Your task to perform on an android device: Add "beats solo 3" to the cart on walmart, then select checkout. Image 0: 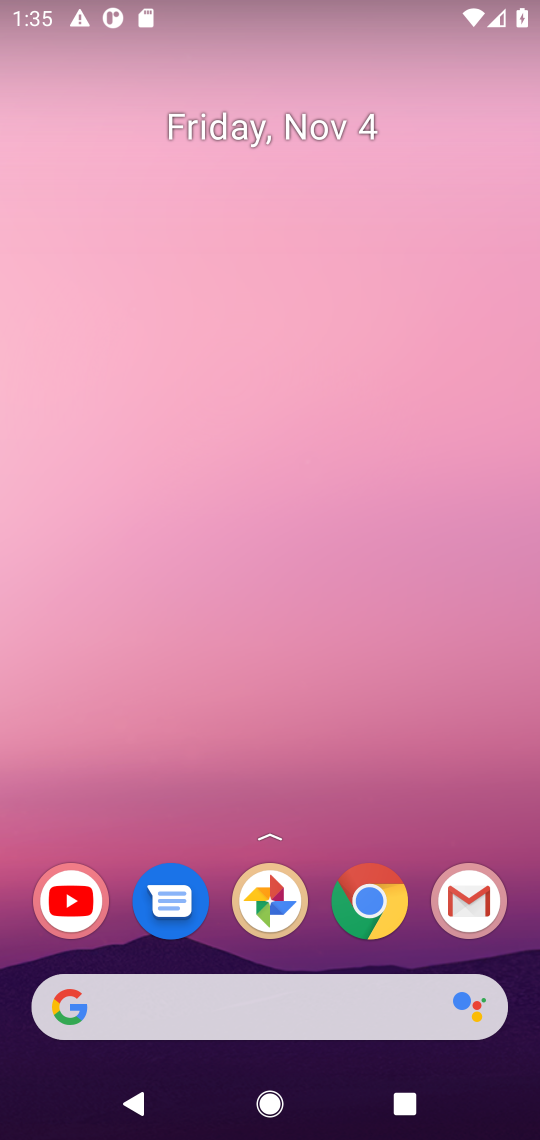
Step 0: click (354, 898)
Your task to perform on an android device: Add "beats solo 3" to the cart on walmart, then select checkout. Image 1: 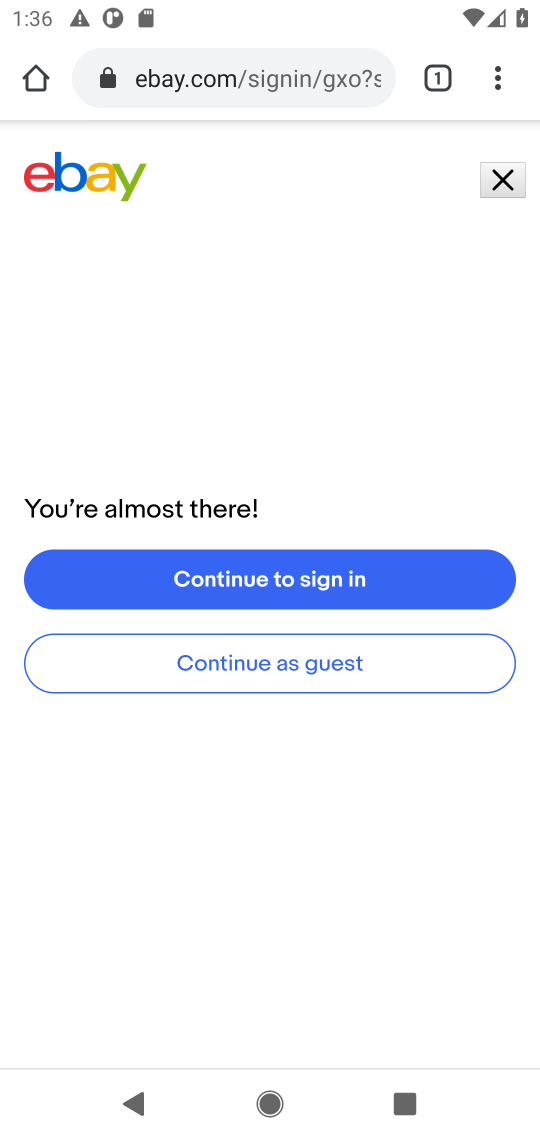
Step 1: click (263, 59)
Your task to perform on an android device: Add "beats solo 3" to the cart on walmart, then select checkout. Image 2: 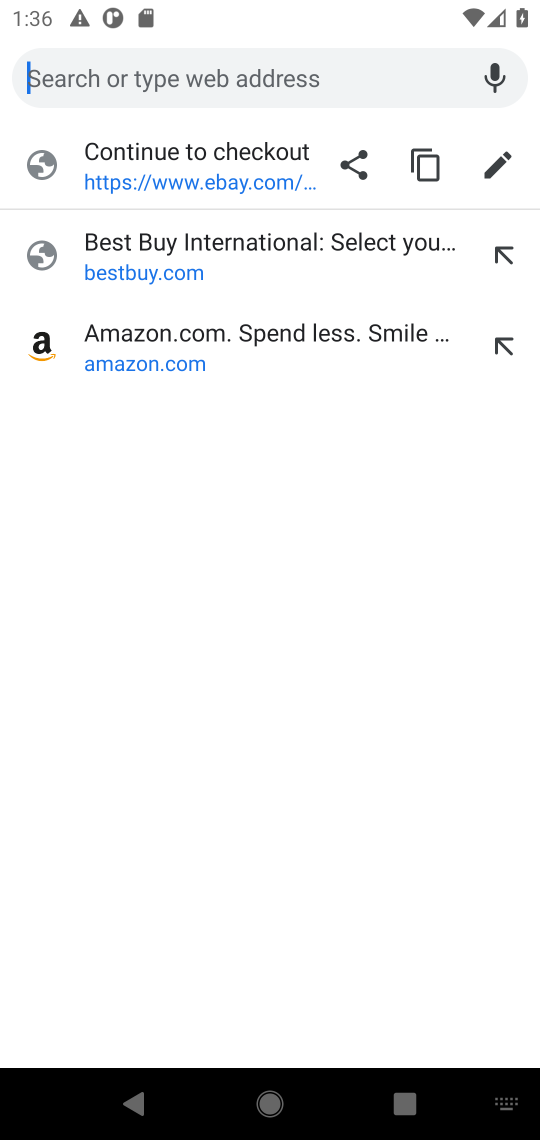
Step 2: type "walmart"
Your task to perform on an android device: Add "beats solo 3" to the cart on walmart, then select checkout. Image 3: 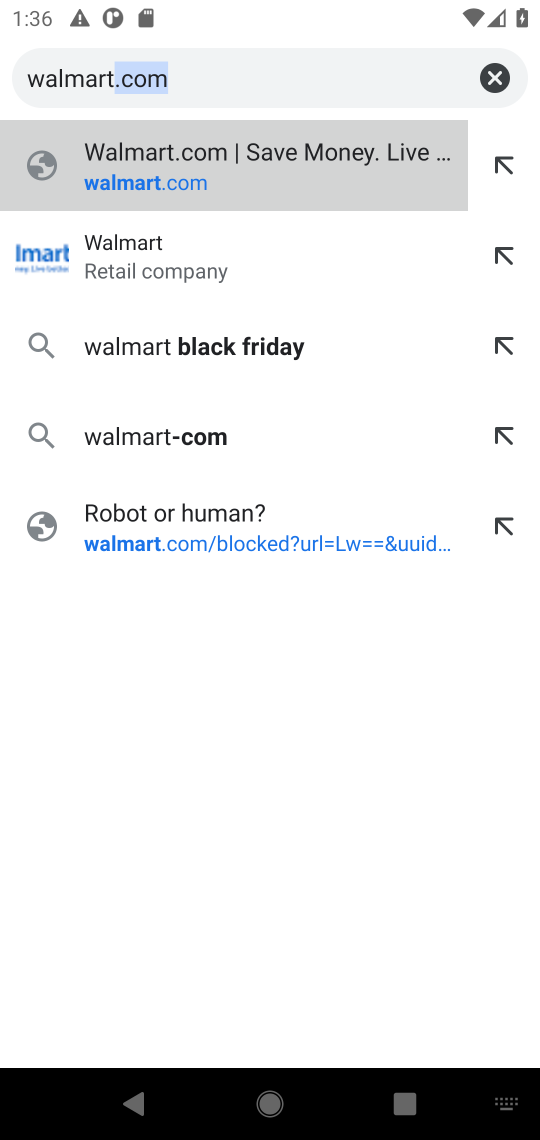
Step 3: press enter
Your task to perform on an android device: Add "beats solo 3" to the cart on walmart, then select checkout. Image 4: 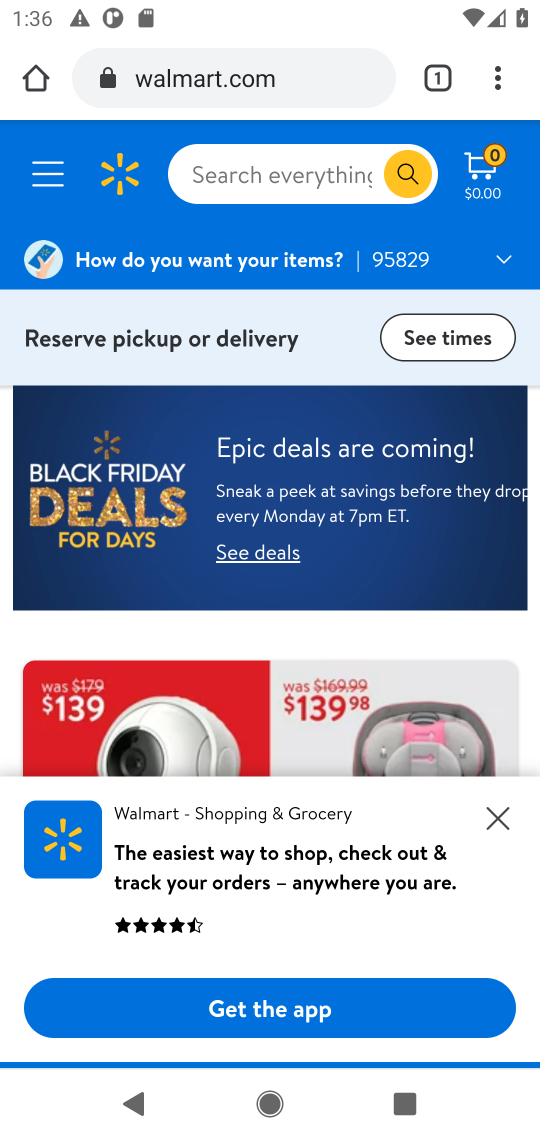
Step 4: click (261, 172)
Your task to perform on an android device: Add "beats solo 3" to the cart on walmart, then select checkout. Image 5: 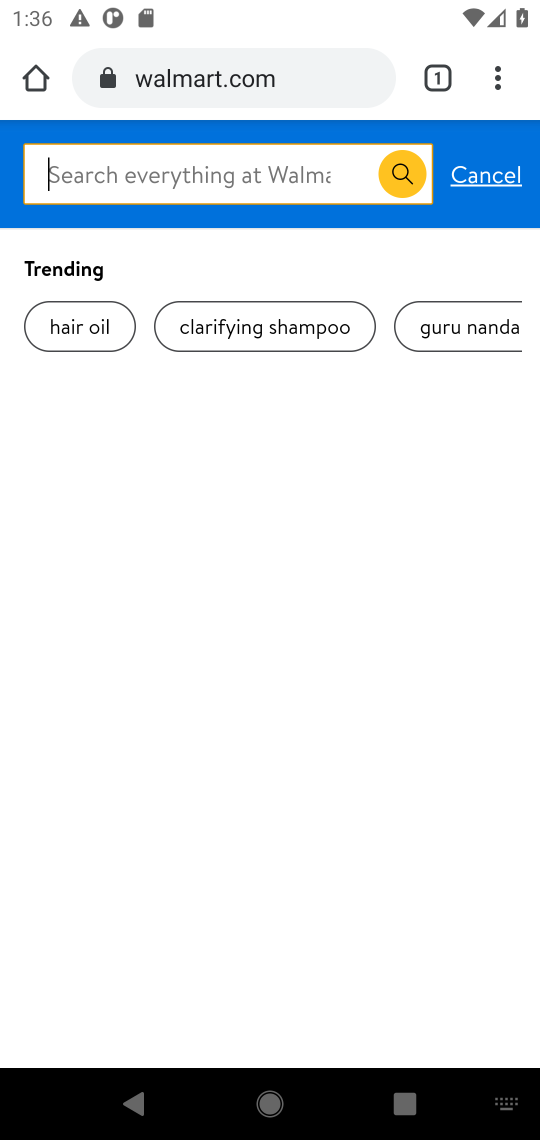
Step 5: type "beats solo 3"
Your task to perform on an android device: Add "beats solo 3" to the cart on walmart, then select checkout. Image 6: 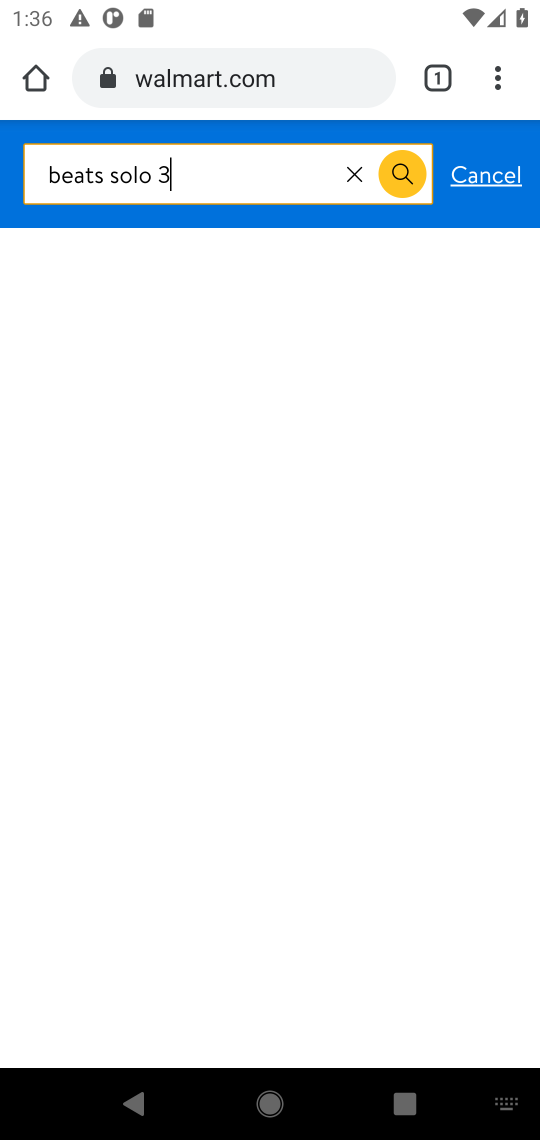
Step 6: press enter
Your task to perform on an android device: Add "beats solo 3" to the cart on walmart, then select checkout. Image 7: 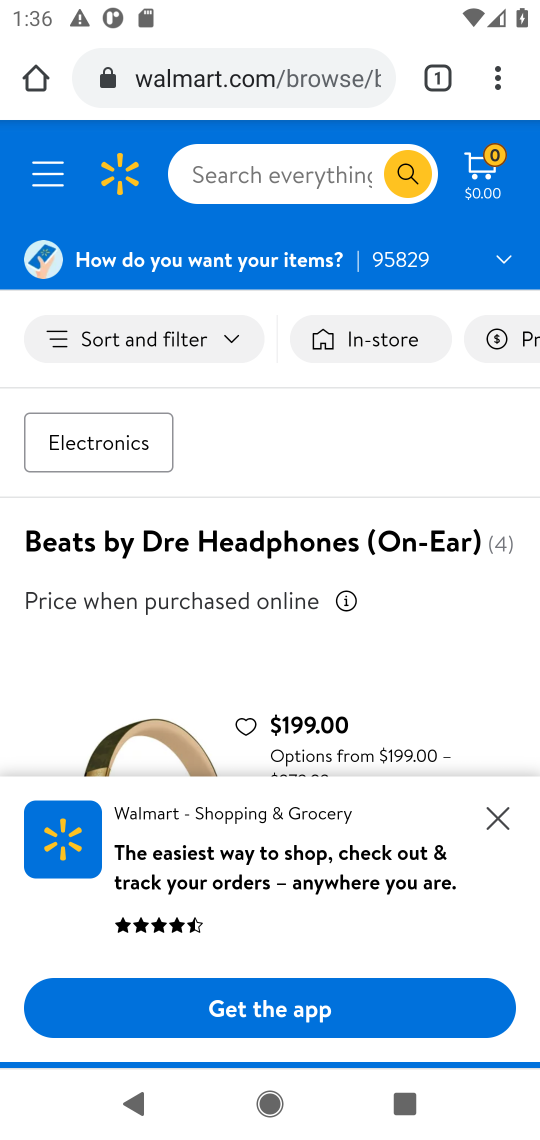
Step 7: click (502, 810)
Your task to perform on an android device: Add "beats solo 3" to the cart on walmart, then select checkout. Image 8: 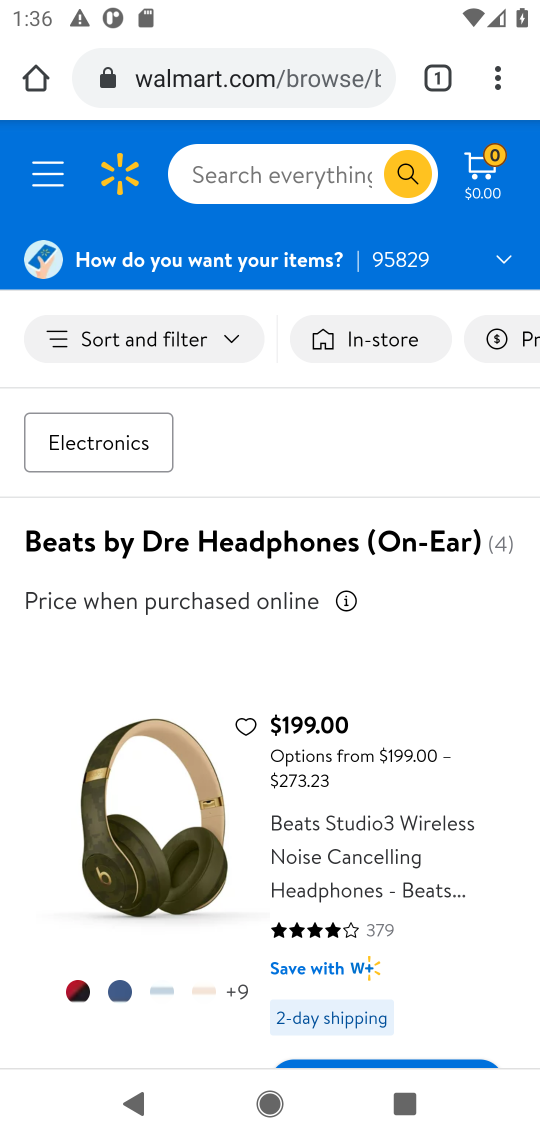
Step 8: drag from (419, 876) to (411, 467)
Your task to perform on an android device: Add "beats solo 3" to the cart on walmart, then select checkout. Image 9: 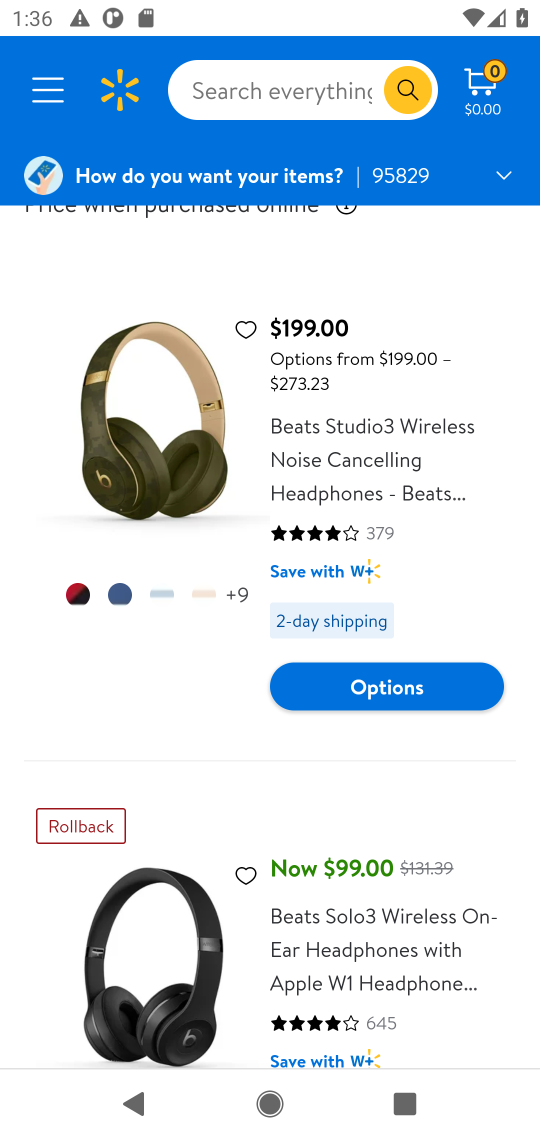
Step 9: click (141, 920)
Your task to perform on an android device: Add "beats solo 3" to the cart on walmart, then select checkout. Image 10: 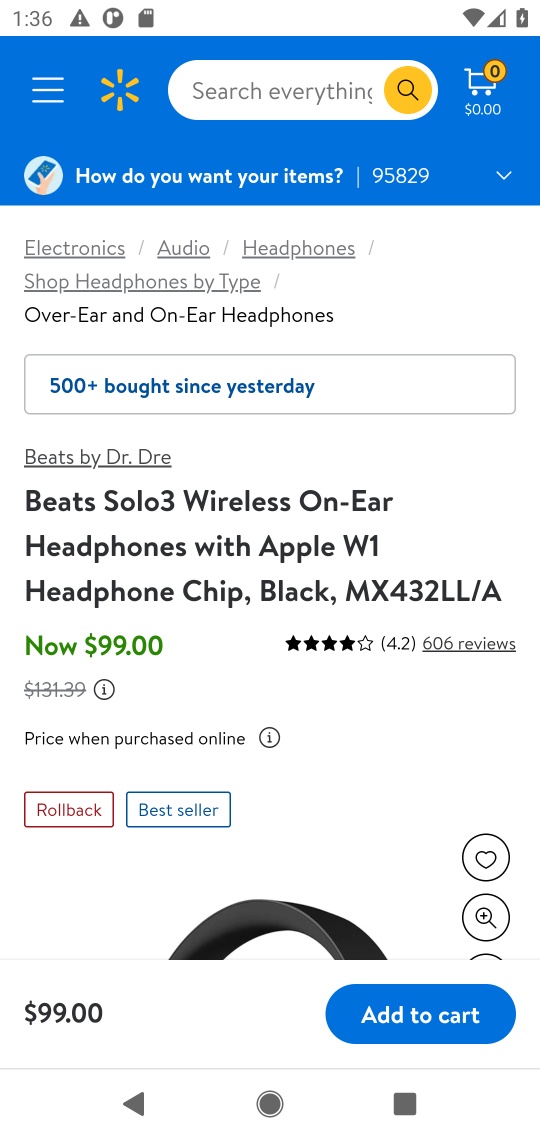
Step 10: click (447, 1020)
Your task to perform on an android device: Add "beats solo 3" to the cart on walmart, then select checkout. Image 11: 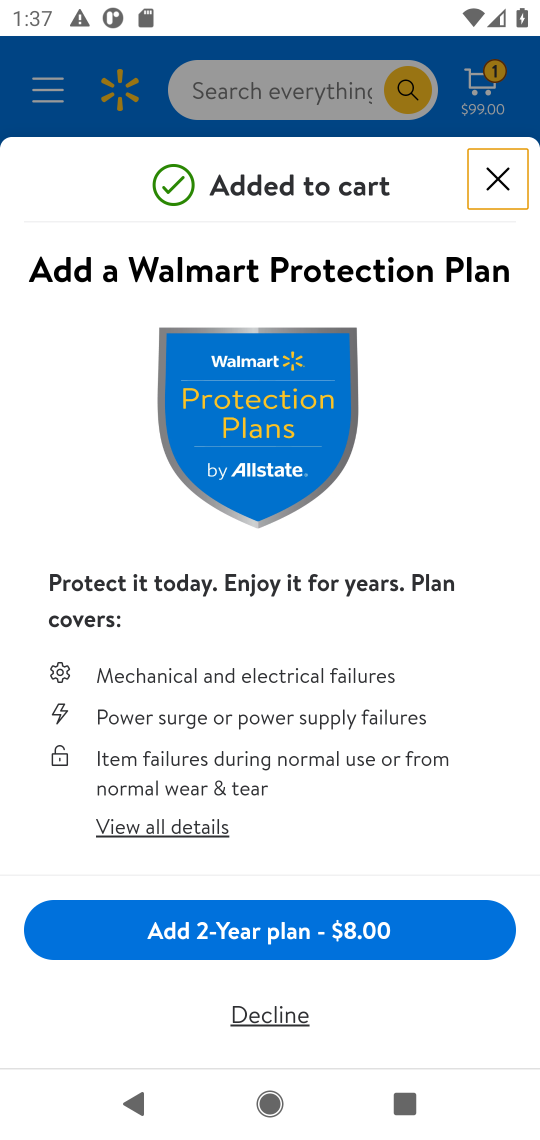
Step 11: click (510, 182)
Your task to perform on an android device: Add "beats solo 3" to the cart on walmart, then select checkout. Image 12: 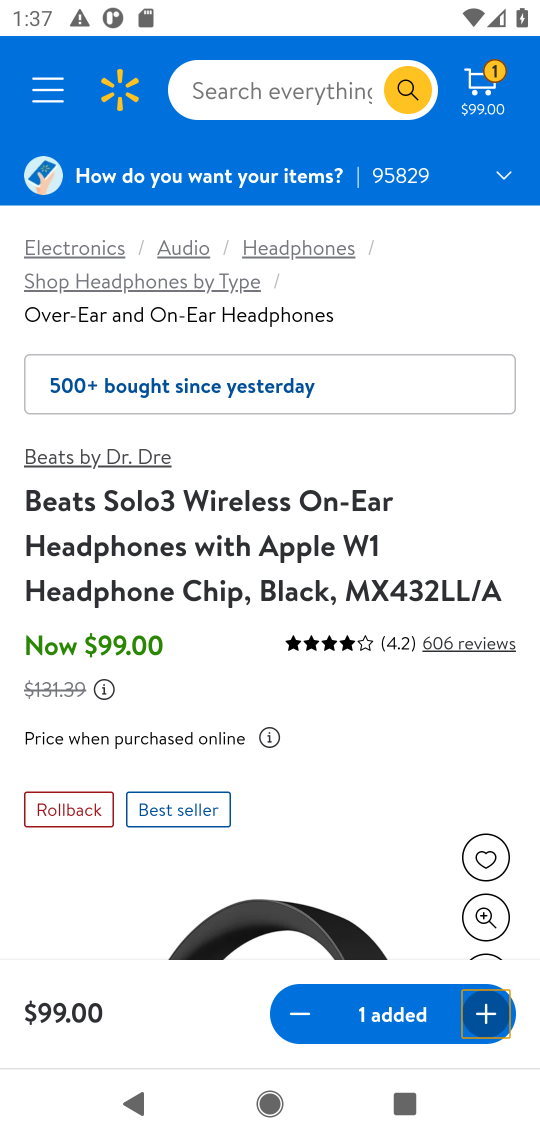
Step 12: click (484, 91)
Your task to perform on an android device: Add "beats solo 3" to the cart on walmart, then select checkout. Image 13: 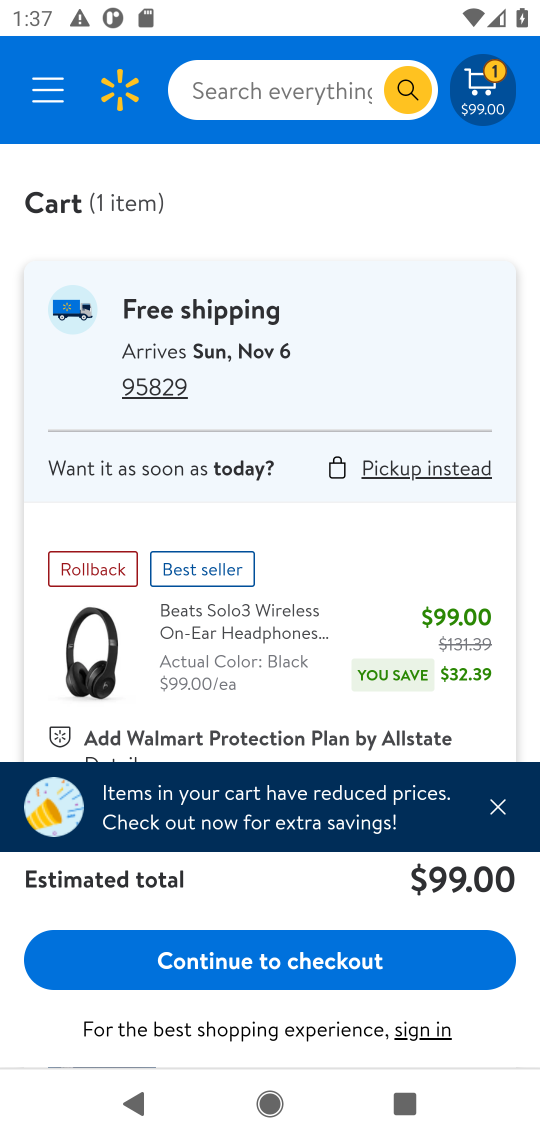
Step 13: click (279, 961)
Your task to perform on an android device: Add "beats solo 3" to the cart on walmart, then select checkout. Image 14: 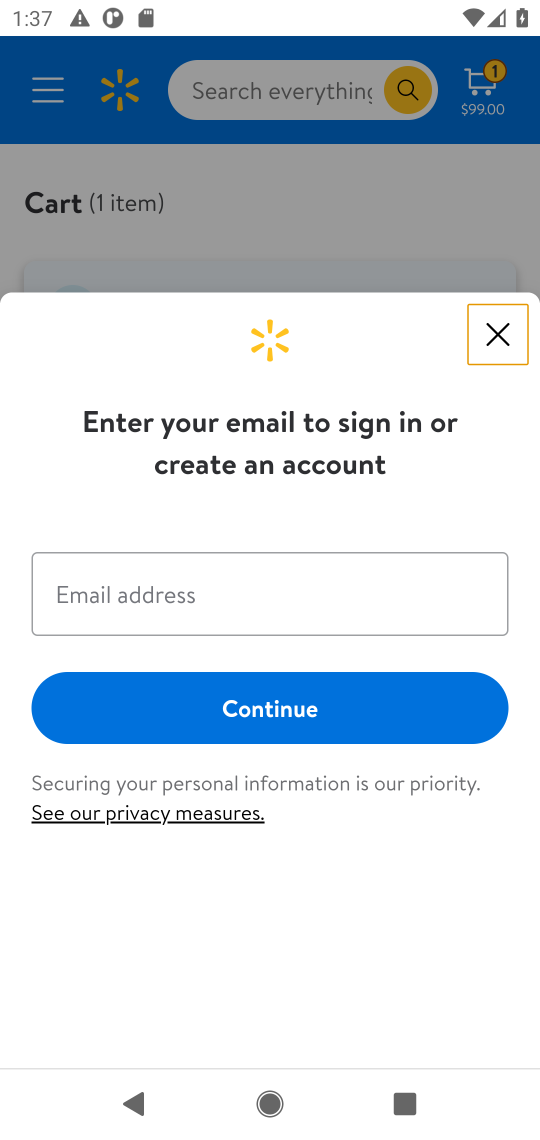
Step 14: task complete